Your task to perform on an android device: turn on showing notifications on the lock screen Image 0: 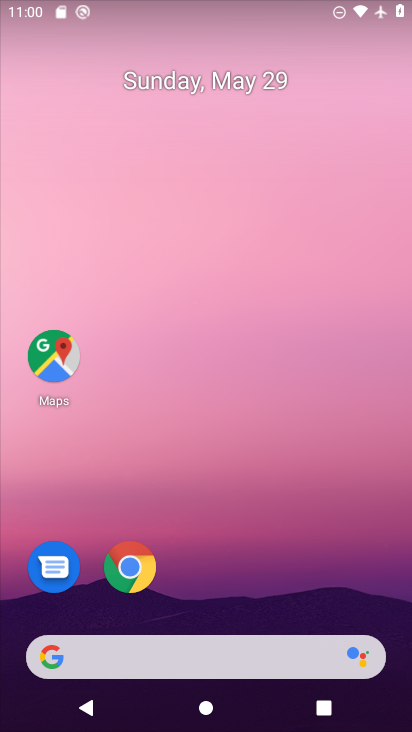
Step 0: drag from (395, 616) to (276, 194)
Your task to perform on an android device: turn on showing notifications on the lock screen Image 1: 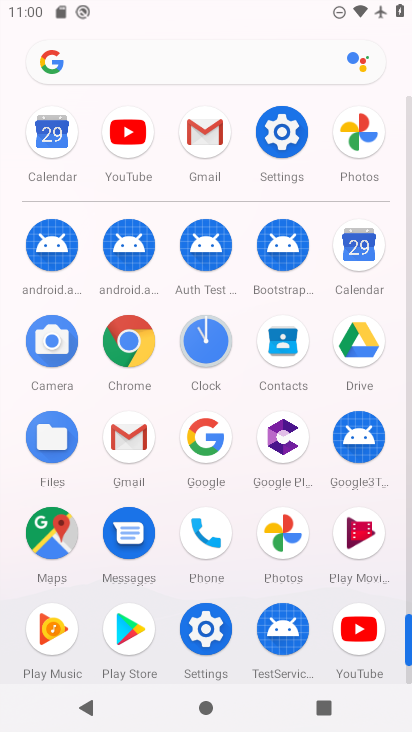
Step 1: click (206, 631)
Your task to perform on an android device: turn on showing notifications on the lock screen Image 2: 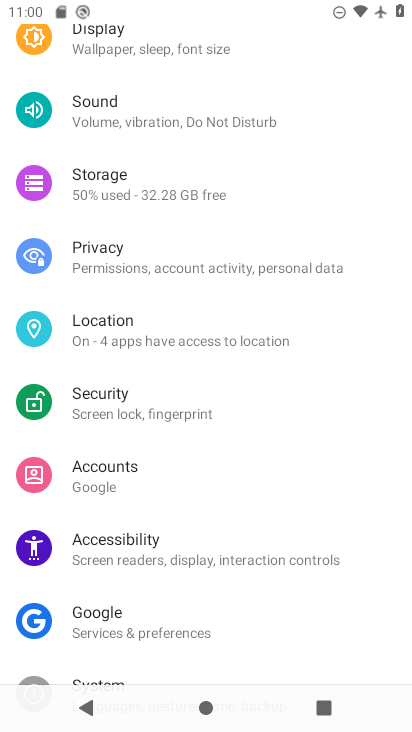
Step 2: drag from (308, 299) to (274, 596)
Your task to perform on an android device: turn on showing notifications on the lock screen Image 3: 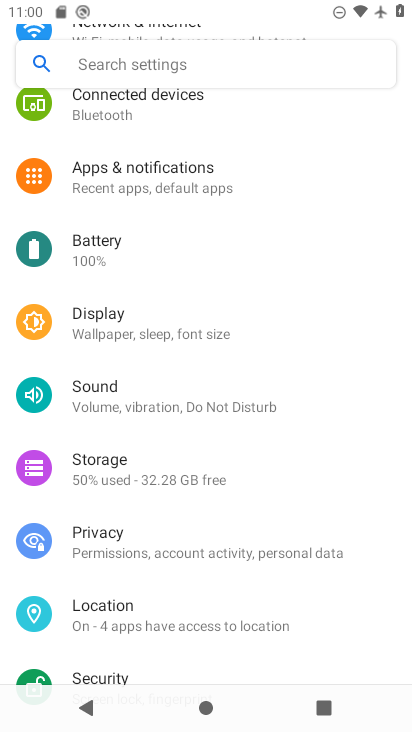
Step 3: click (128, 164)
Your task to perform on an android device: turn on showing notifications on the lock screen Image 4: 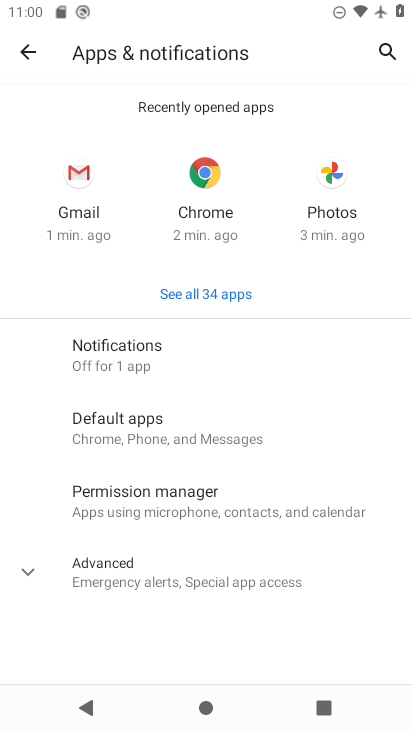
Step 4: click (127, 346)
Your task to perform on an android device: turn on showing notifications on the lock screen Image 5: 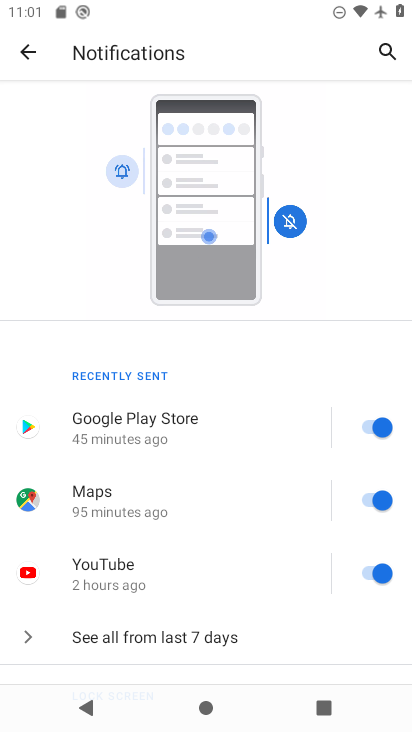
Step 5: drag from (207, 585) to (208, 197)
Your task to perform on an android device: turn on showing notifications on the lock screen Image 6: 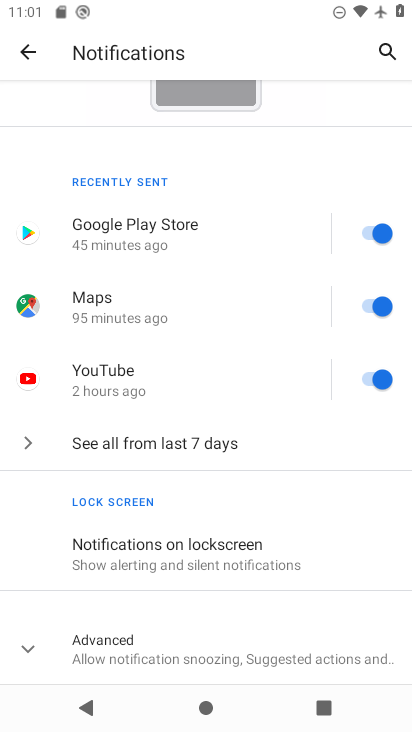
Step 6: click (158, 544)
Your task to perform on an android device: turn on showing notifications on the lock screen Image 7: 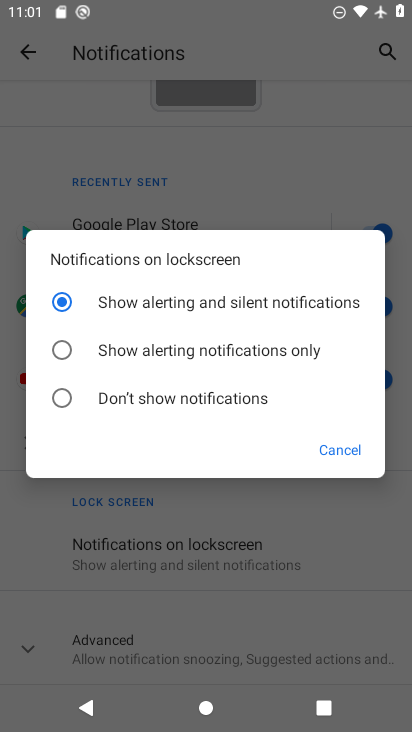
Step 7: task complete